Your task to perform on an android device: Set the phone to "Do not disturb". Image 0: 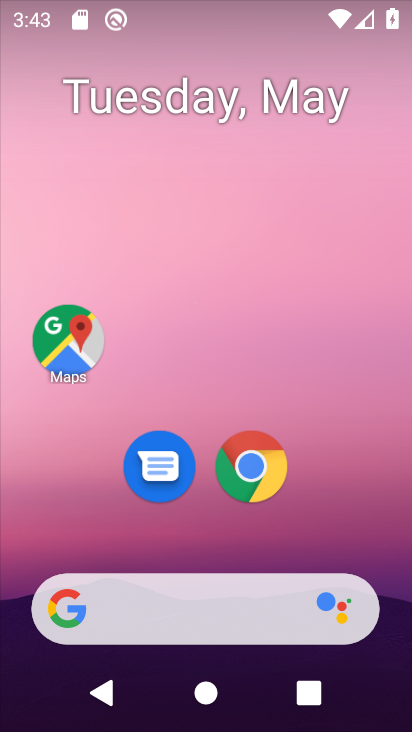
Step 0: drag from (375, 489) to (361, 339)
Your task to perform on an android device: Set the phone to "Do not disturb". Image 1: 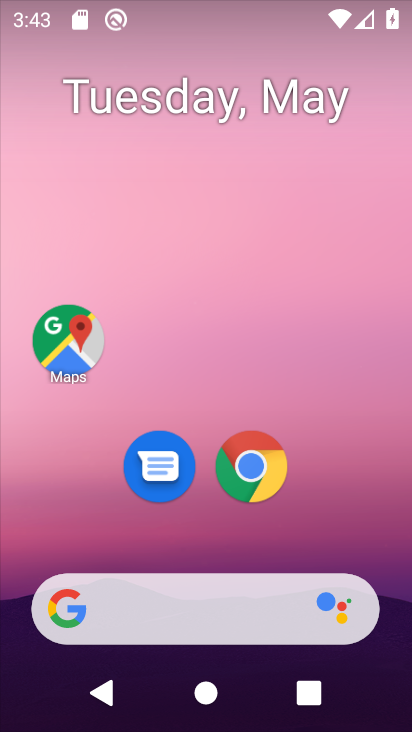
Step 1: drag from (336, 13) to (183, 721)
Your task to perform on an android device: Set the phone to "Do not disturb". Image 2: 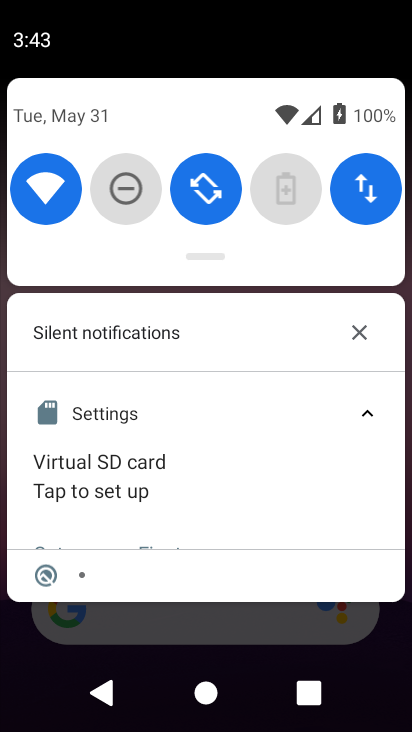
Step 2: click (113, 181)
Your task to perform on an android device: Set the phone to "Do not disturb". Image 3: 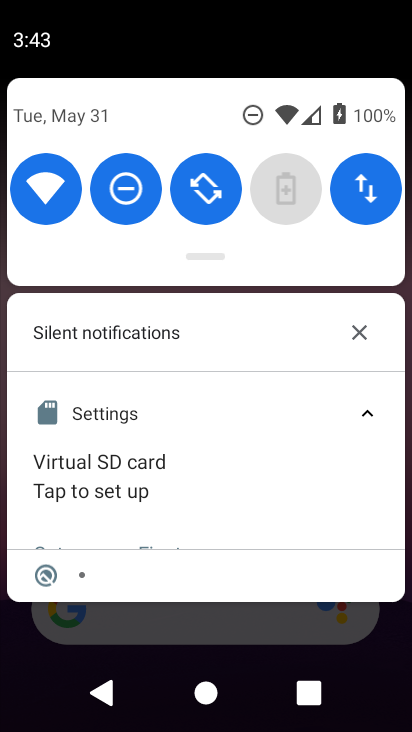
Step 3: task complete